Your task to perform on an android device: Open maps Image 0: 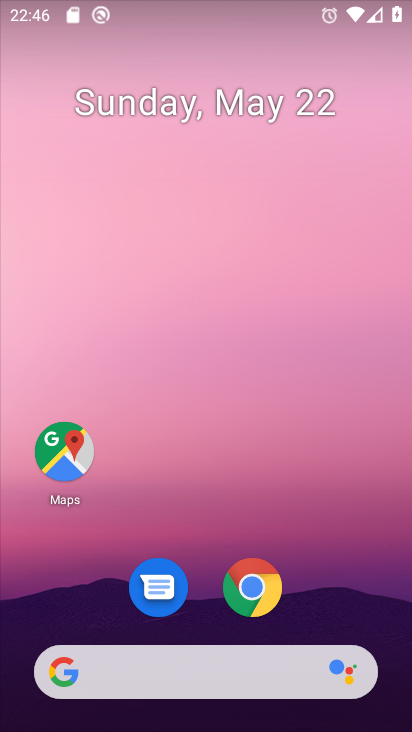
Step 0: click (62, 439)
Your task to perform on an android device: Open maps Image 1: 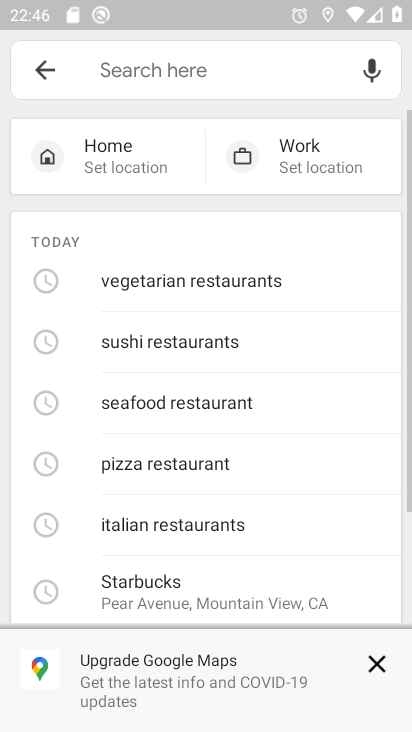
Step 1: click (46, 70)
Your task to perform on an android device: Open maps Image 2: 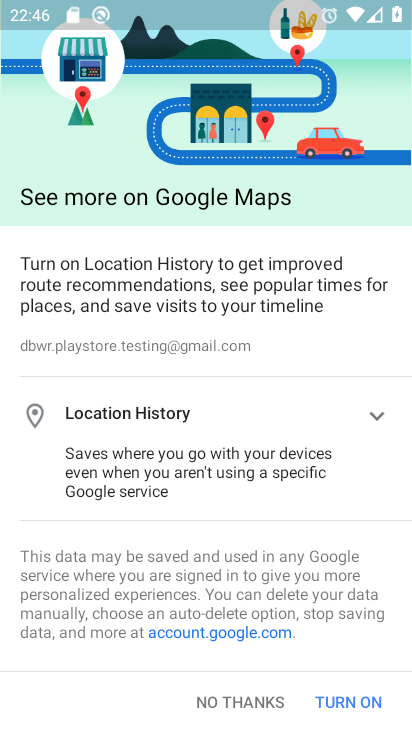
Step 2: click (263, 697)
Your task to perform on an android device: Open maps Image 3: 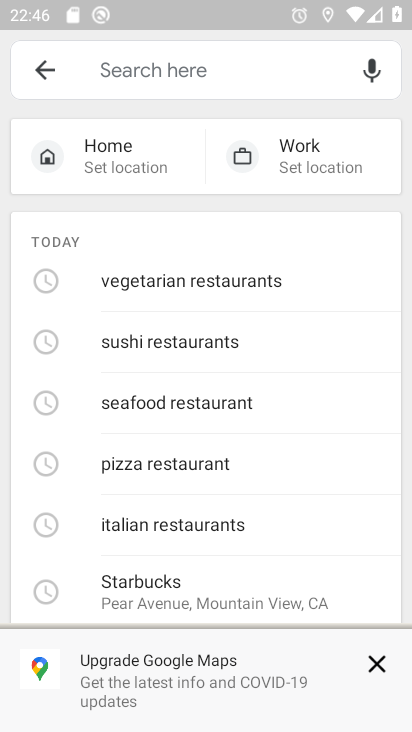
Step 3: click (377, 653)
Your task to perform on an android device: Open maps Image 4: 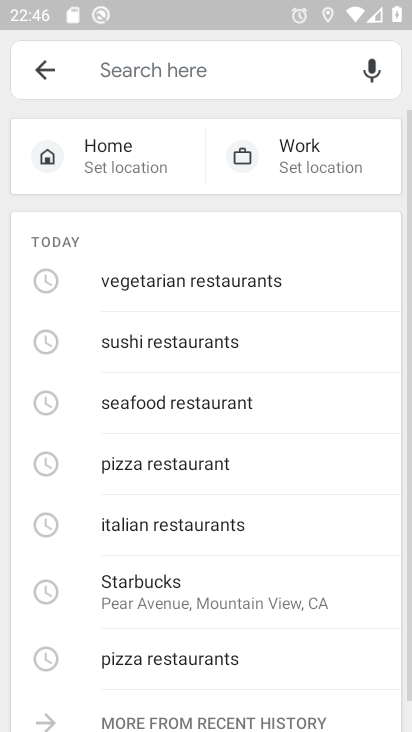
Step 4: click (42, 44)
Your task to perform on an android device: Open maps Image 5: 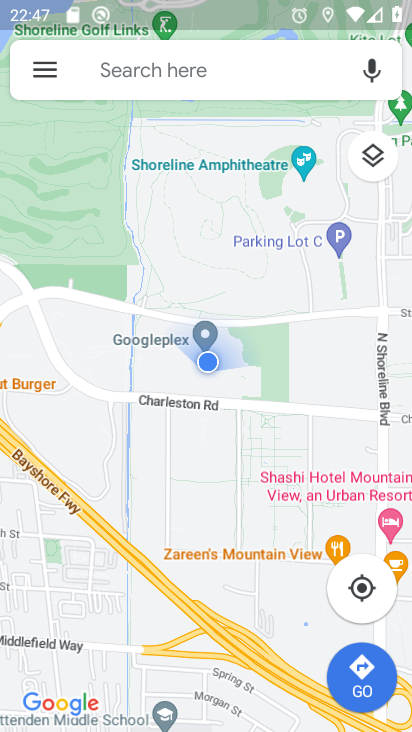
Step 5: task complete